Your task to perform on an android device: Open the phone app and click the voicemail tab. Image 0: 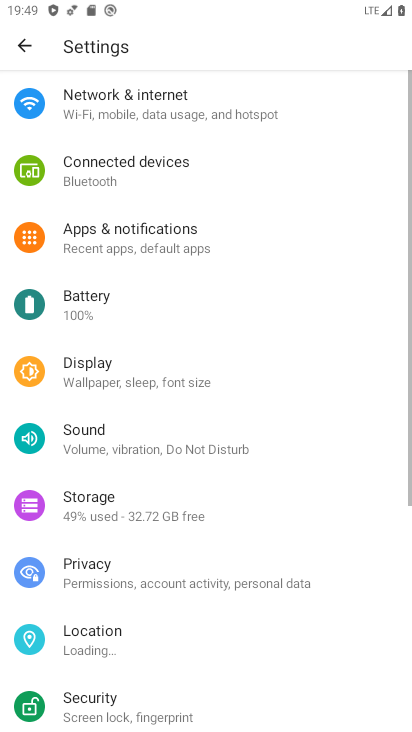
Step 0: press home button
Your task to perform on an android device: Open the phone app and click the voicemail tab. Image 1: 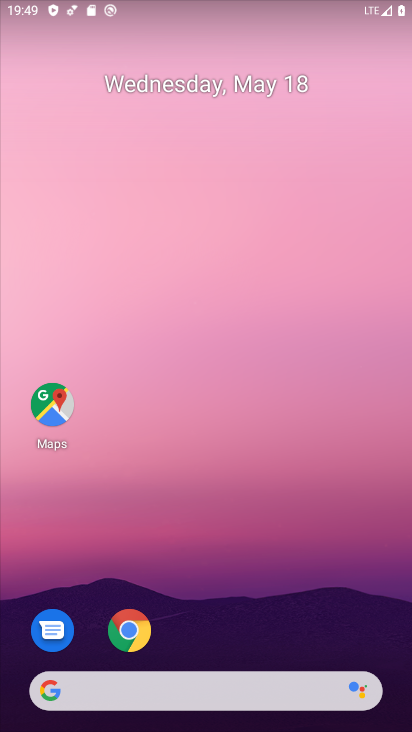
Step 1: drag from (179, 686) to (378, 85)
Your task to perform on an android device: Open the phone app and click the voicemail tab. Image 2: 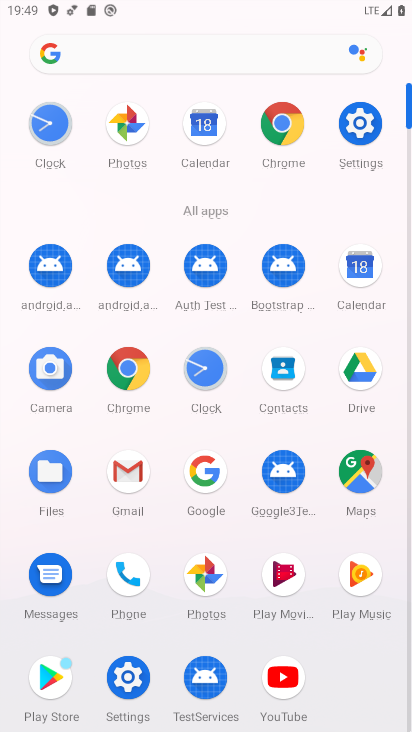
Step 2: click (124, 581)
Your task to perform on an android device: Open the phone app and click the voicemail tab. Image 3: 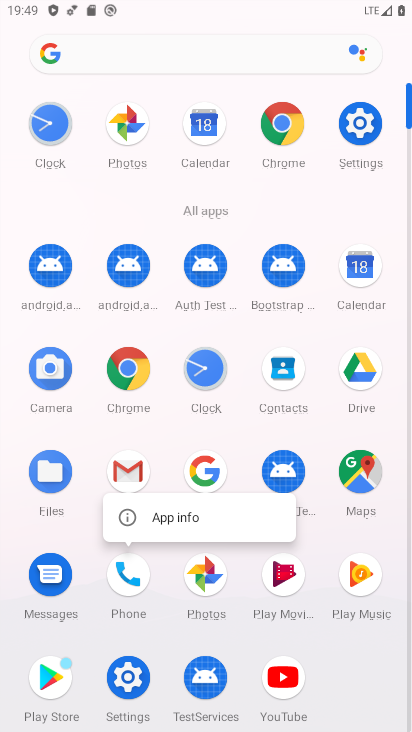
Step 3: click (129, 580)
Your task to perform on an android device: Open the phone app and click the voicemail tab. Image 4: 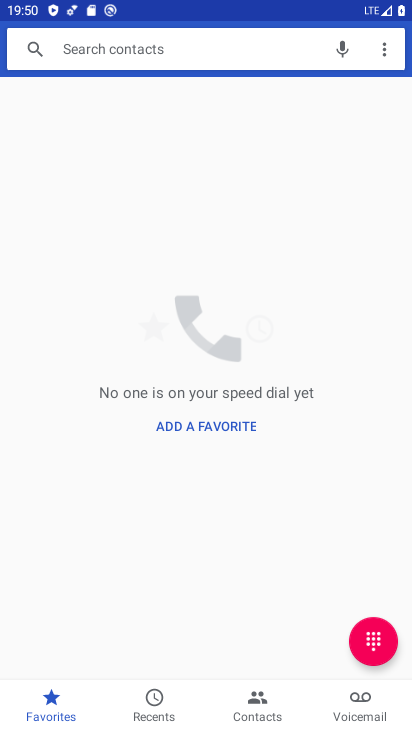
Step 4: click (367, 701)
Your task to perform on an android device: Open the phone app and click the voicemail tab. Image 5: 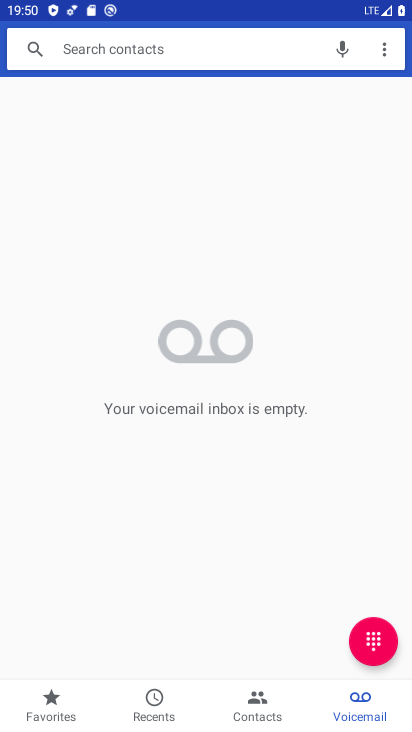
Step 5: task complete